Your task to perform on an android device: Empty the shopping cart on amazon.com. Image 0: 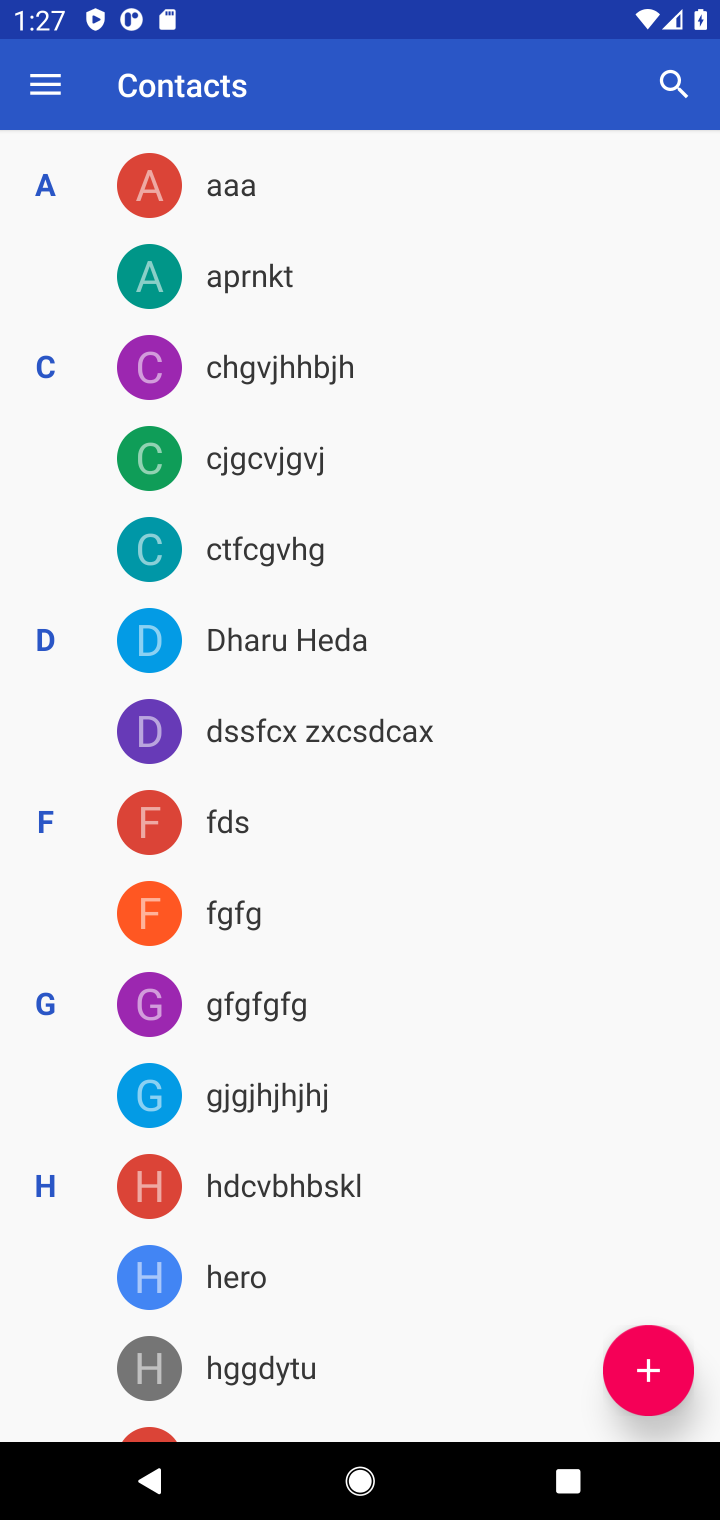
Step 0: press home button
Your task to perform on an android device: Empty the shopping cart on amazon.com. Image 1: 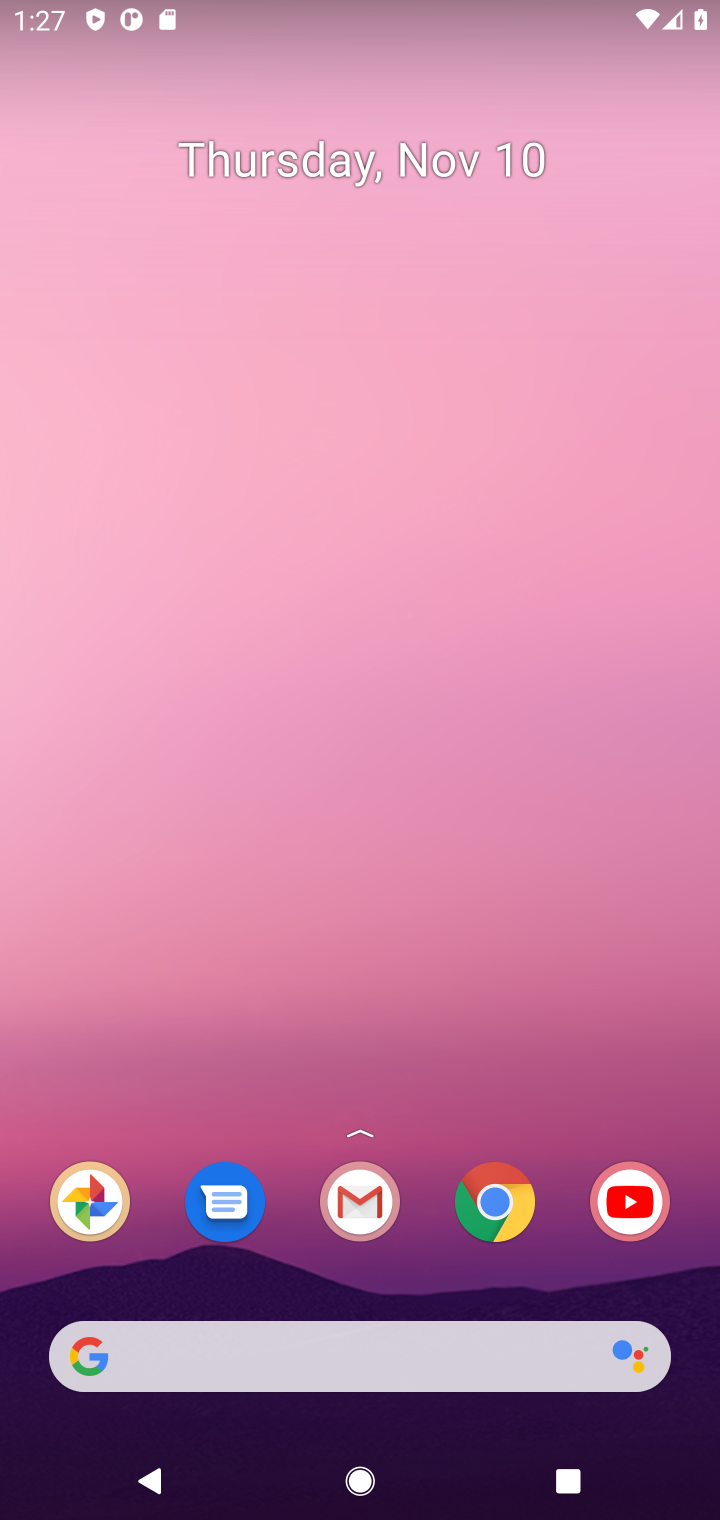
Step 1: click (496, 1204)
Your task to perform on an android device: Empty the shopping cart on amazon.com. Image 2: 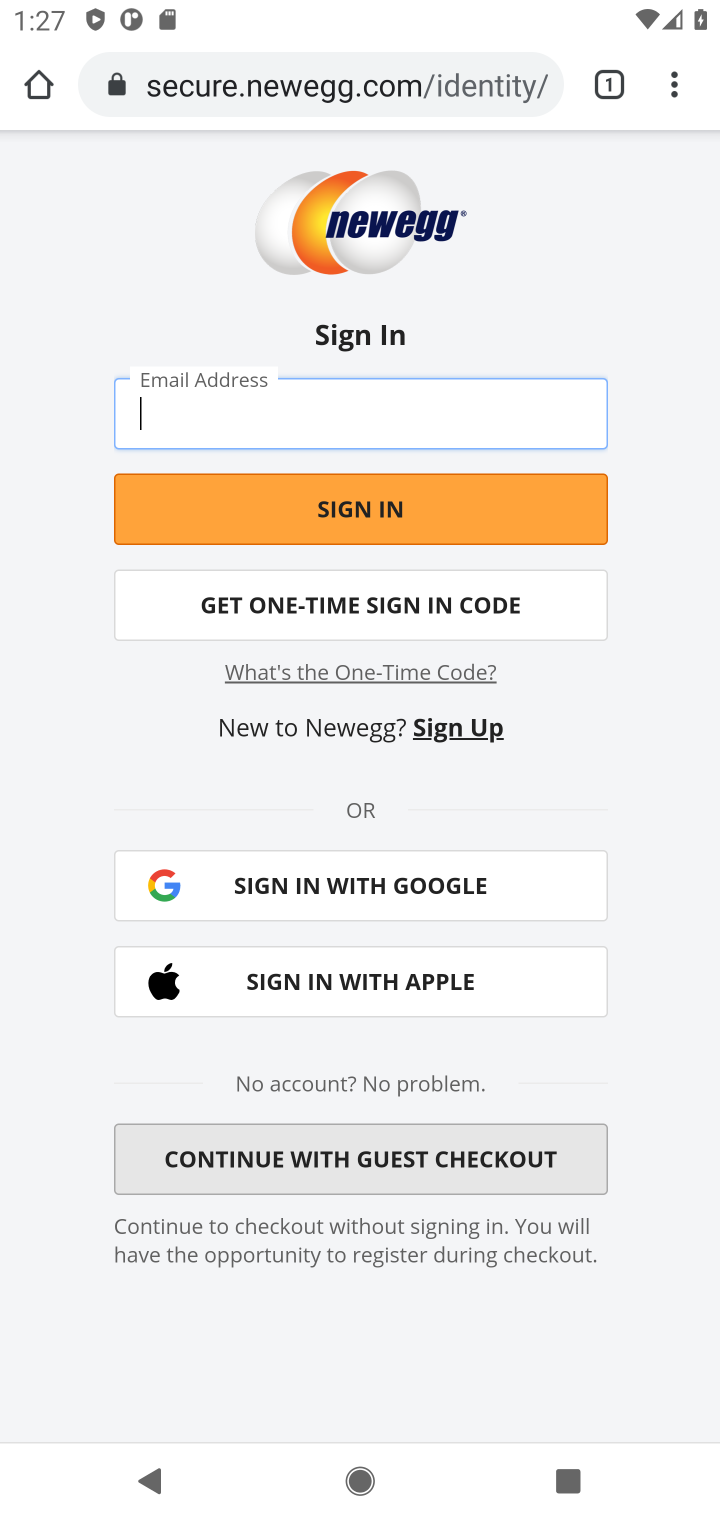
Step 2: click (320, 64)
Your task to perform on an android device: Empty the shopping cart on amazon.com. Image 3: 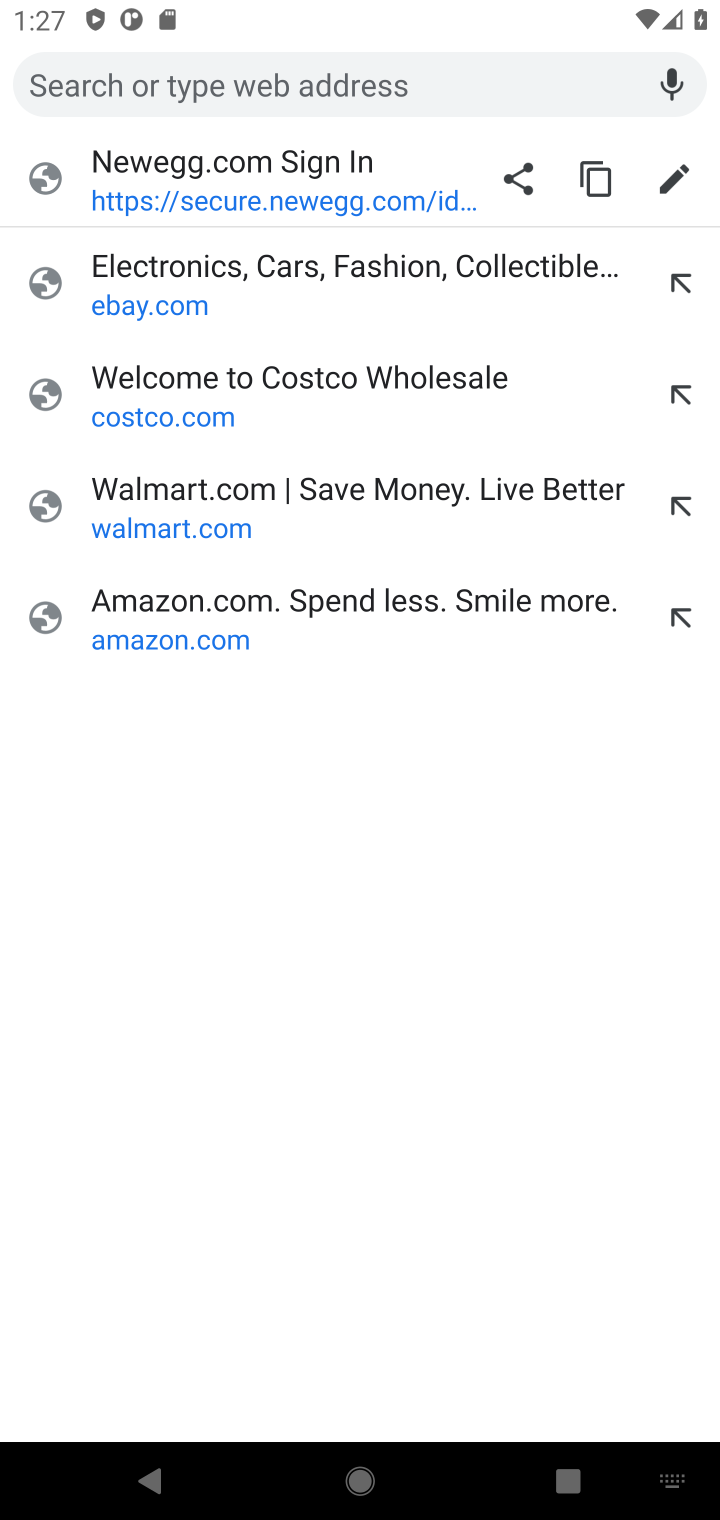
Step 3: click (365, 597)
Your task to perform on an android device: Empty the shopping cart on amazon.com. Image 4: 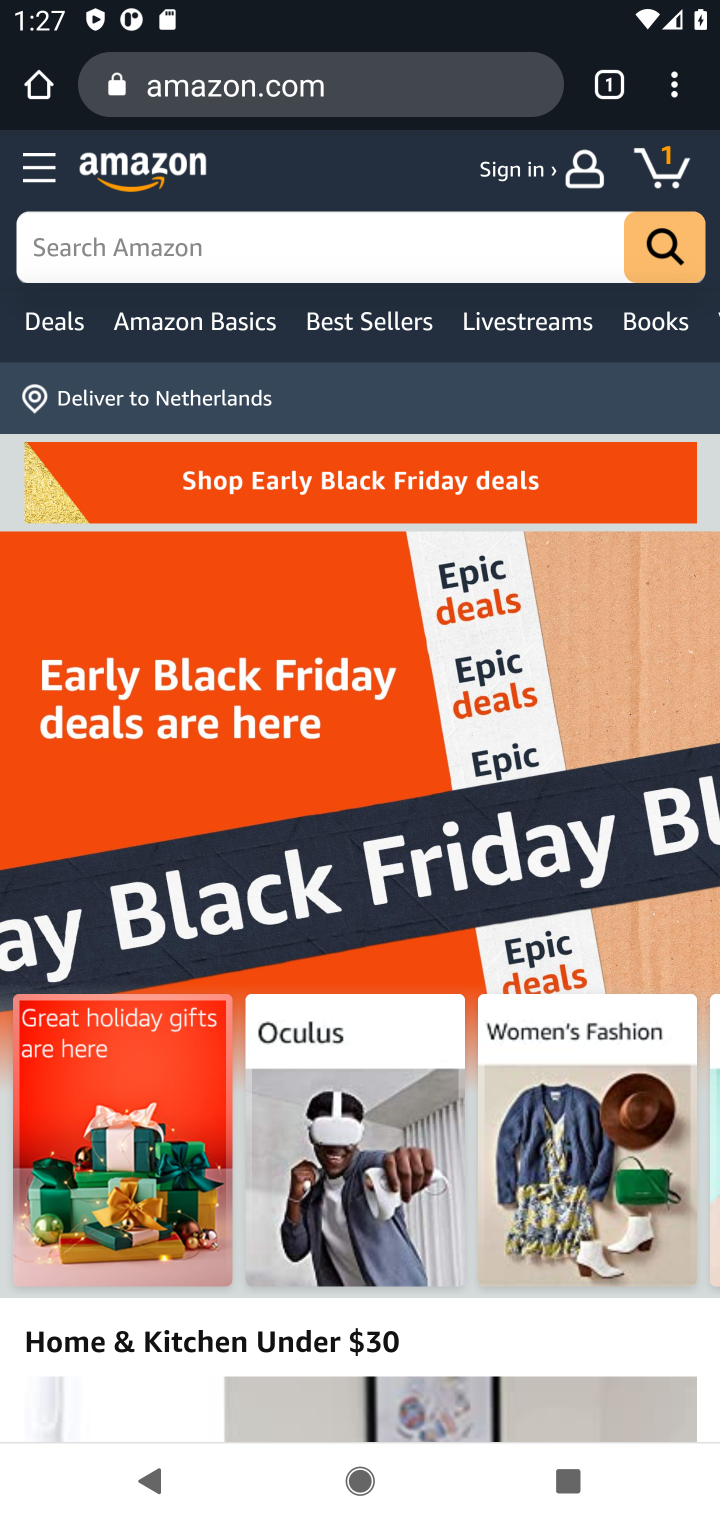
Step 4: click (661, 158)
Your task to perform on an android device: Empty the shopping cart on amazon.com. Image 5: 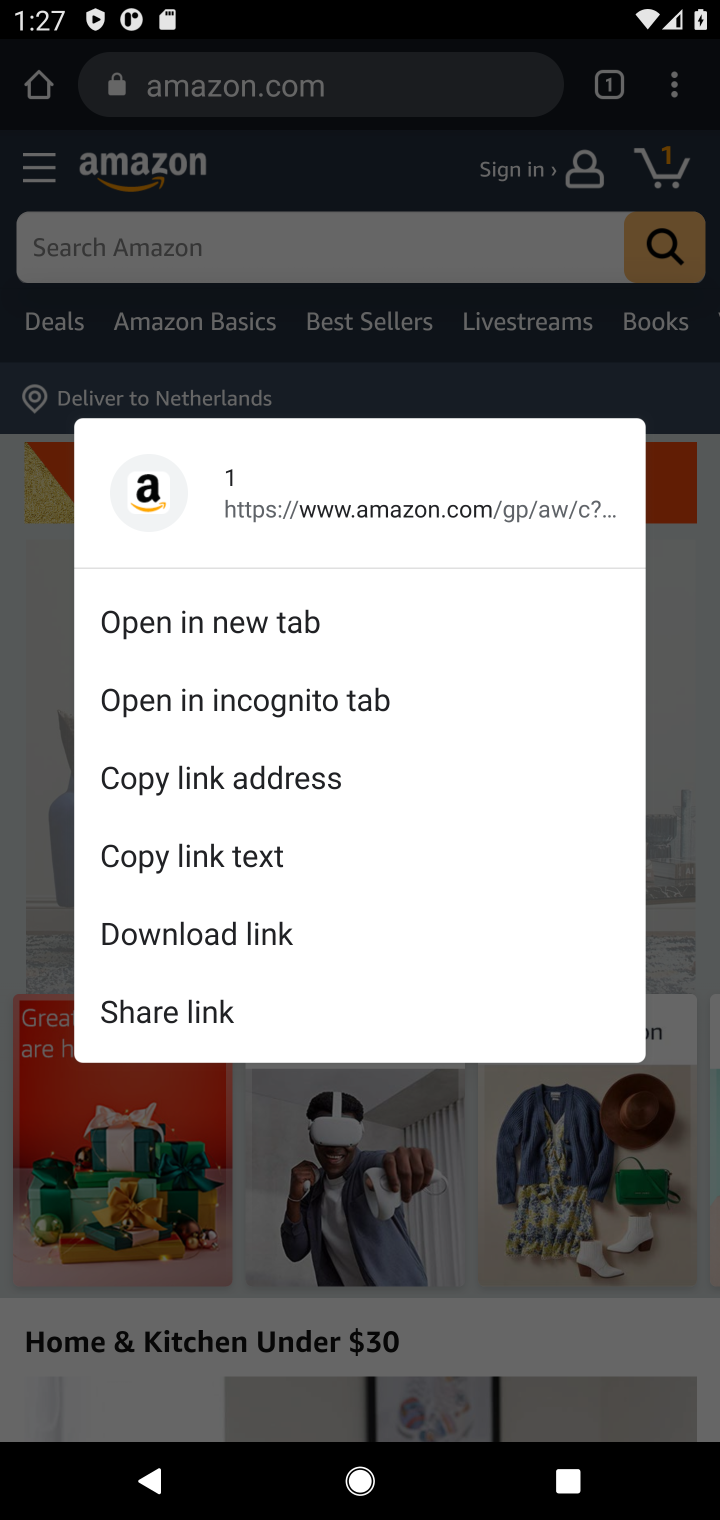
Step 5: click (665, 158)
Your task to perform on an android device: Empty the shopping cart on amazon.com. Image 6: 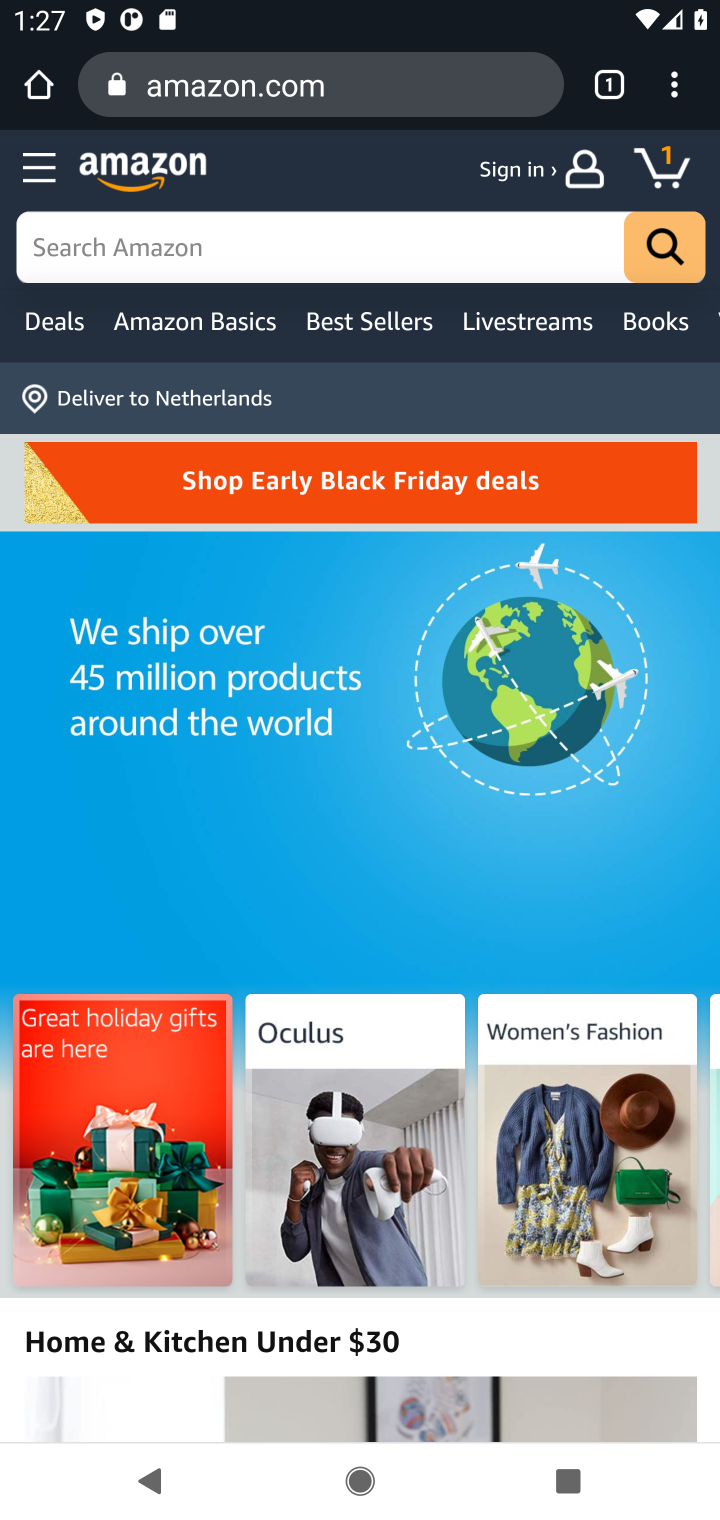
Step 6: click (670, 160)
Your task to perform on an android device: Empty the shopping cart on amazon.com. Image 7: 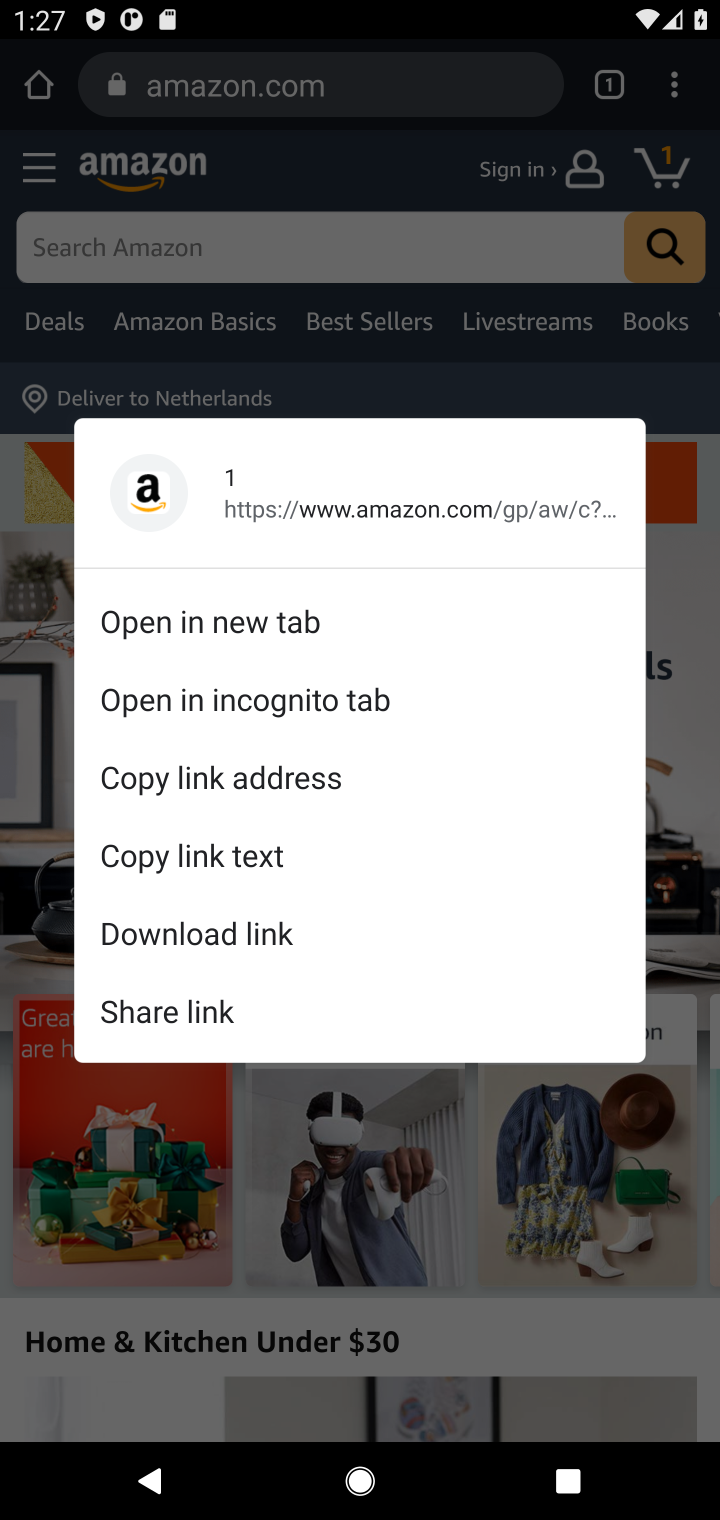
Step 7: click (660, 149)
Your task to perform on an android device: Empty the shopping cart on amazon.com. Image 8: 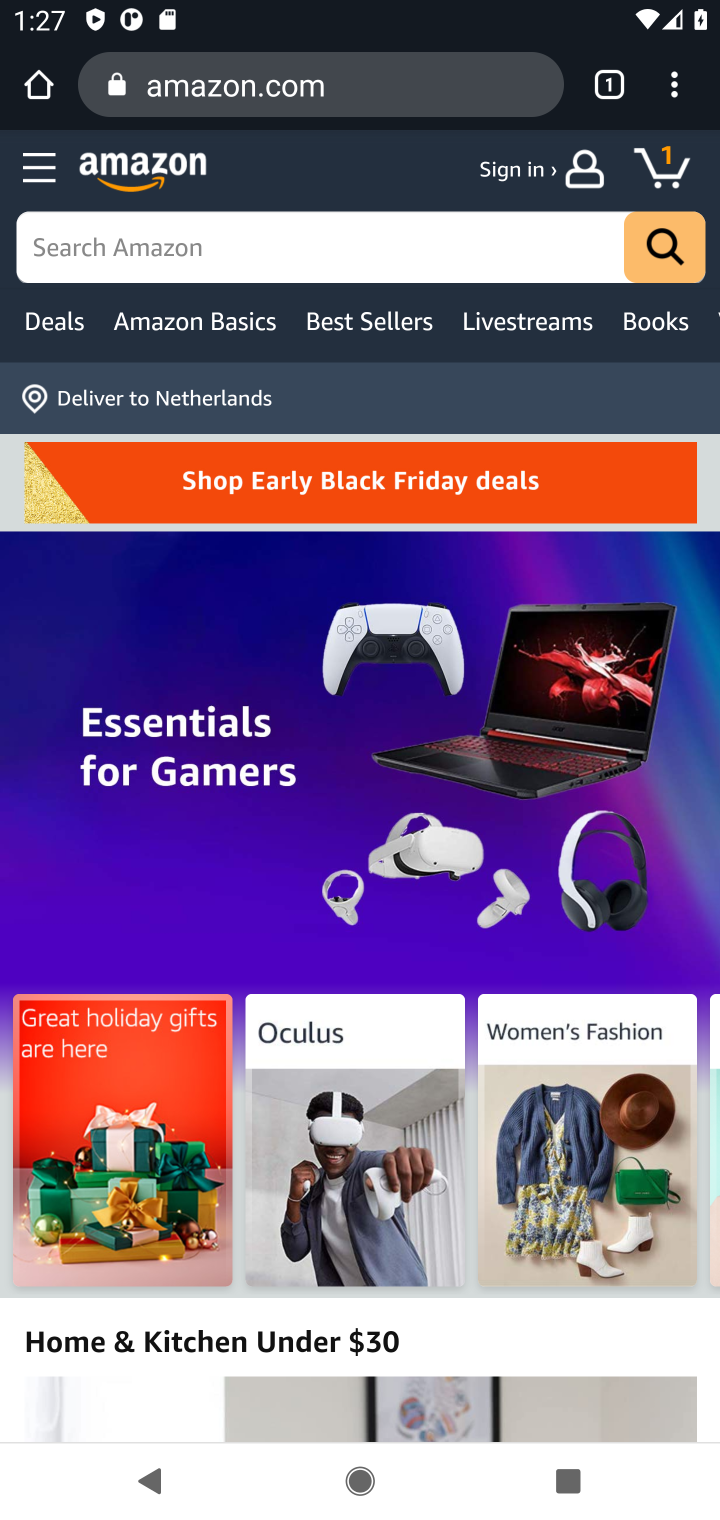
Step 8: click (660, 149)
Your task to perform on an android device: Empty the shopping cart on amazon.com. Image 9: 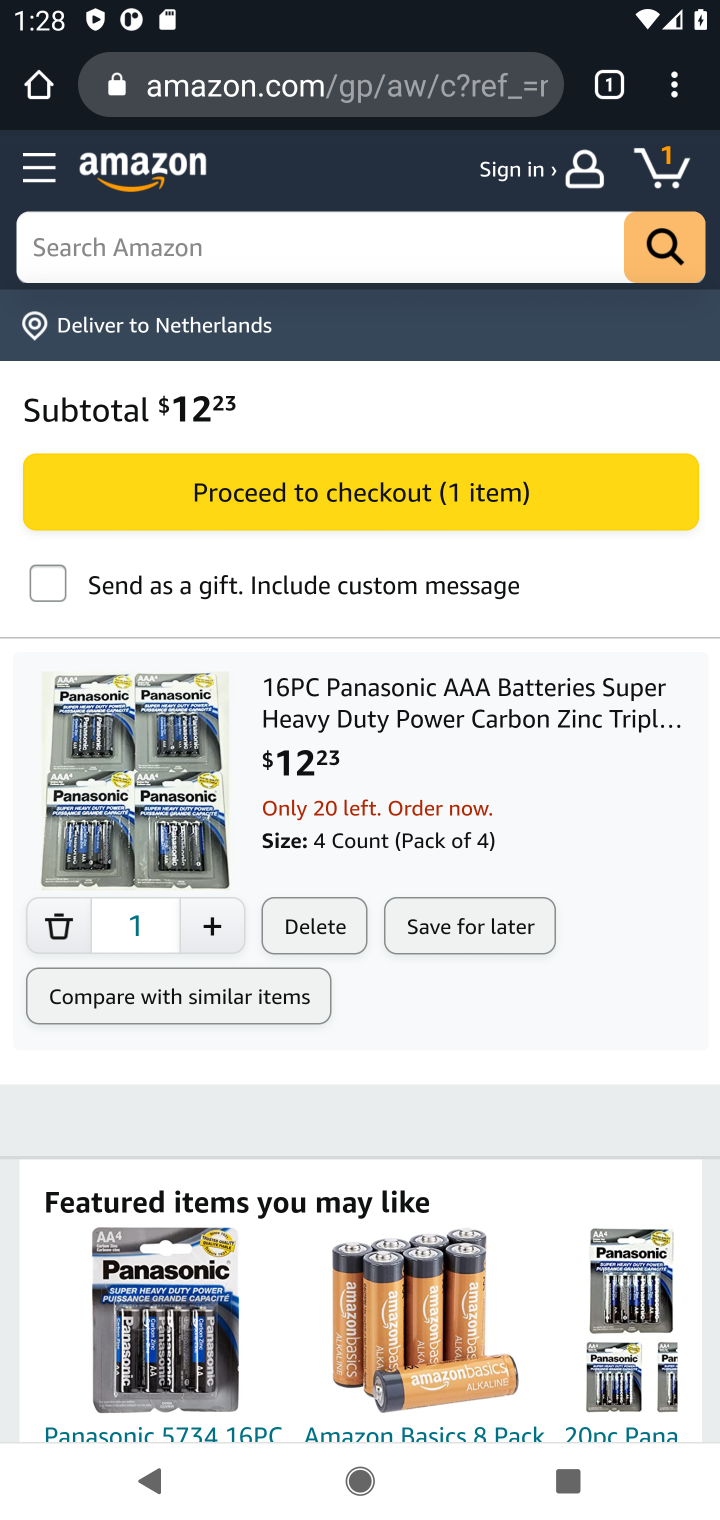
Step 9: click (324, 933)
Your task to perform on an android device: Empty the shopping cart on amazon.com. Image 10: 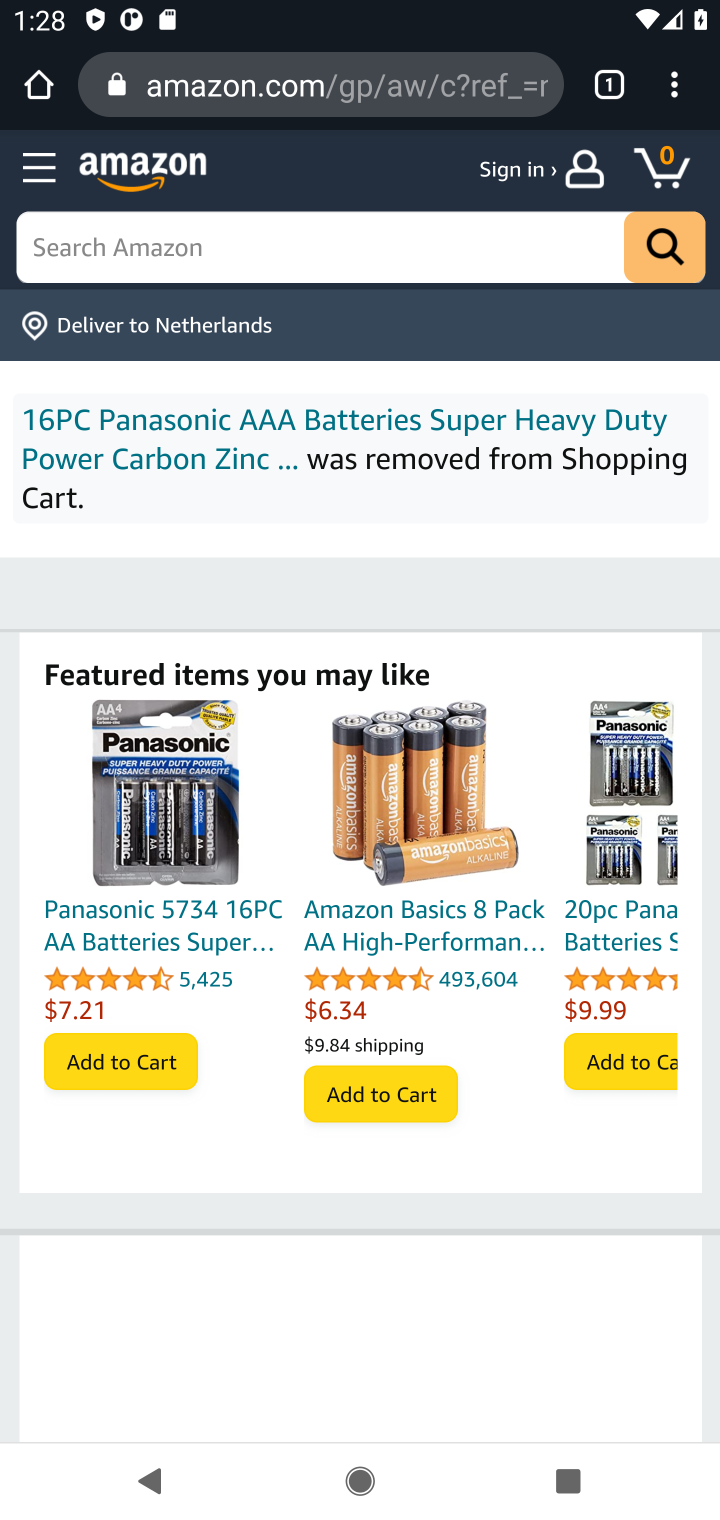
Step 10: task complete